Your task to perform on an android device: Open accessibility settings Image 0: 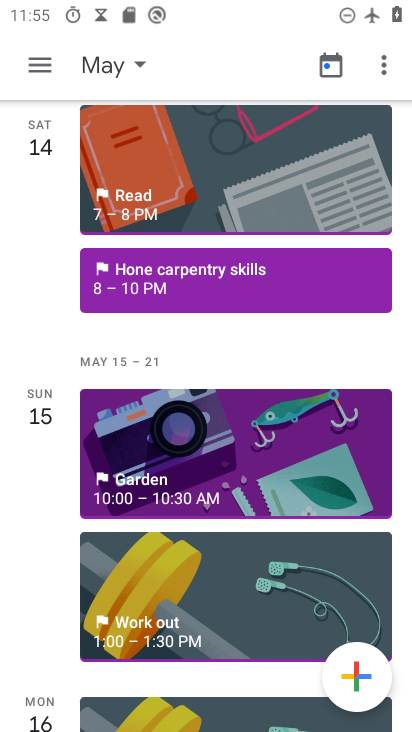
Step 0: press home button
Your task to perform on an android device: Open accessibility settings Image 1: 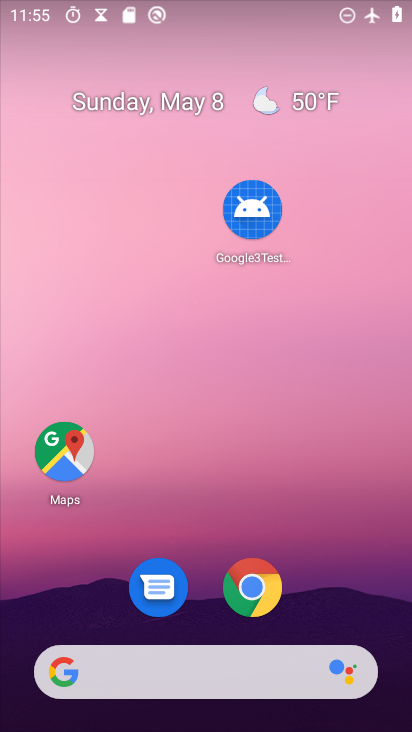
Step 1: drag from (289, 518) to (140, 117)
Your task to perform on an android device: Open accessibility settings Image 2: 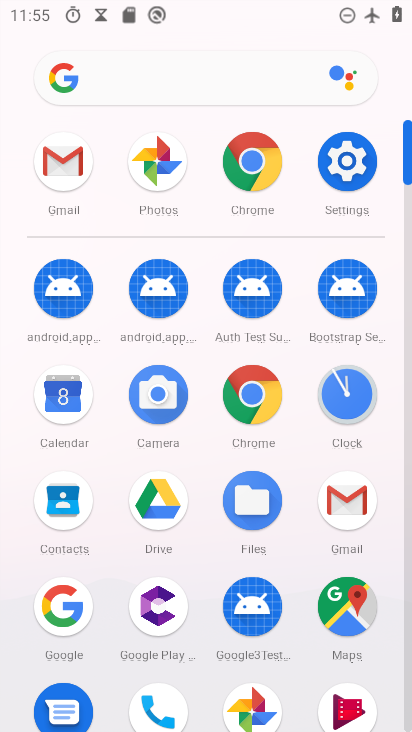
Step 2: click (354, 153)
Your task to perform on an android device: Open accessibility settings Image 3: 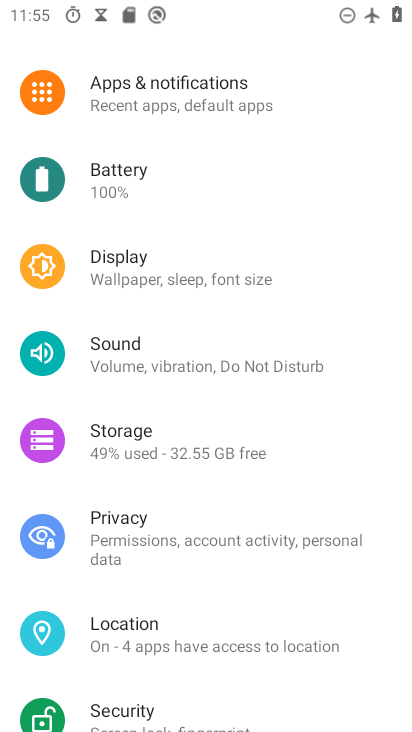
Step 3: drag from (163, 645) to (163, 135)
Your task to perform on an android device: Open accessibility settings Image 4: 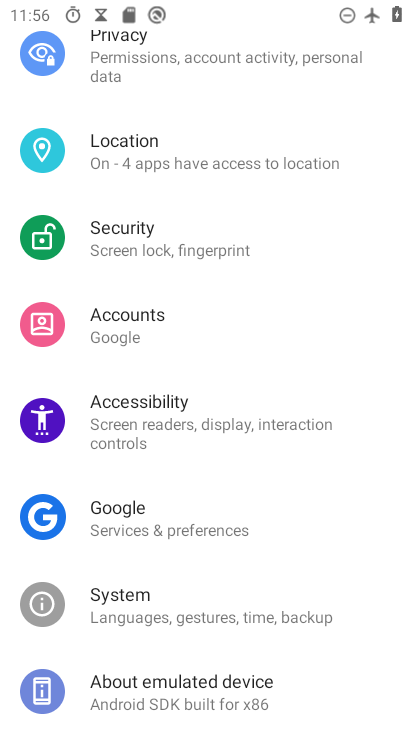
Step 4: drag from (139, 636) to (164, 259)
Your task to perform on an android device: Open accessibility settings Image 5: 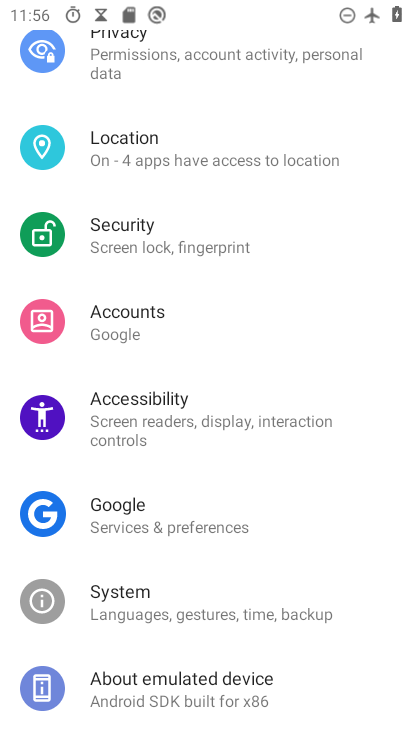
Step 5: drag from (189, 649) to (185, 420)
Your task to perform on an android device: Open accessibility settings Image 6: 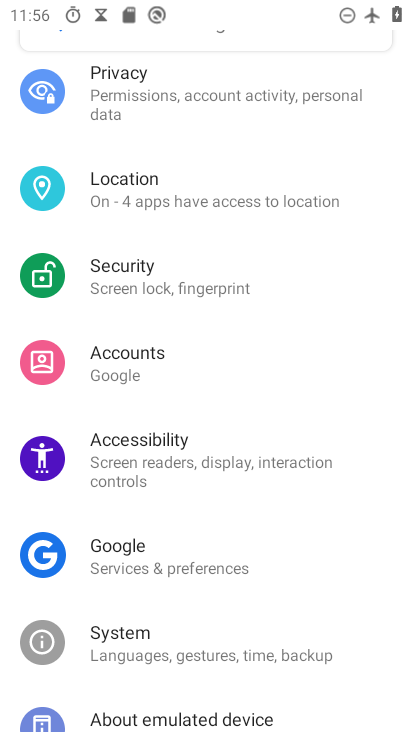
Step 6: click (166, 471)
Your task to perform on an android device: Open accessibility settings Image 7: 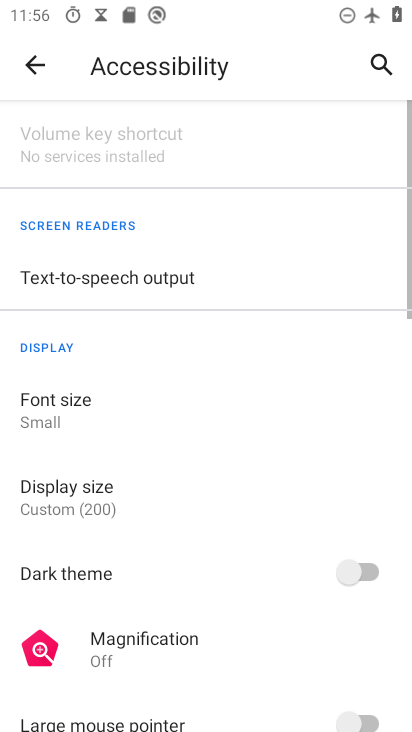
Step 7: task complete